Your task to perform on an android device: turn off sleep mode Image 0: 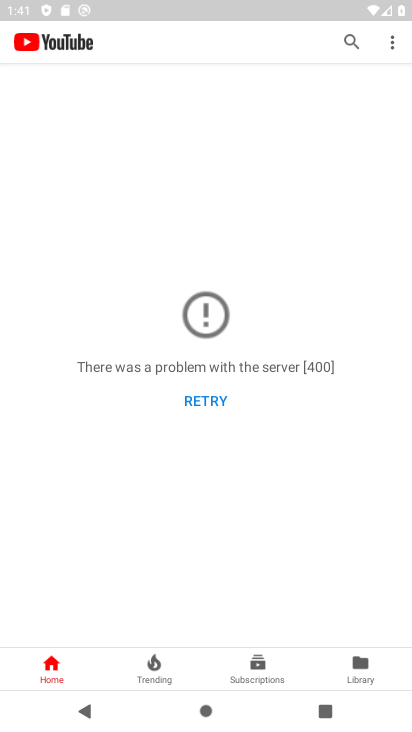
Step 0: press home button
Your task to perform on an android device: turn off sleep mode Image 1: 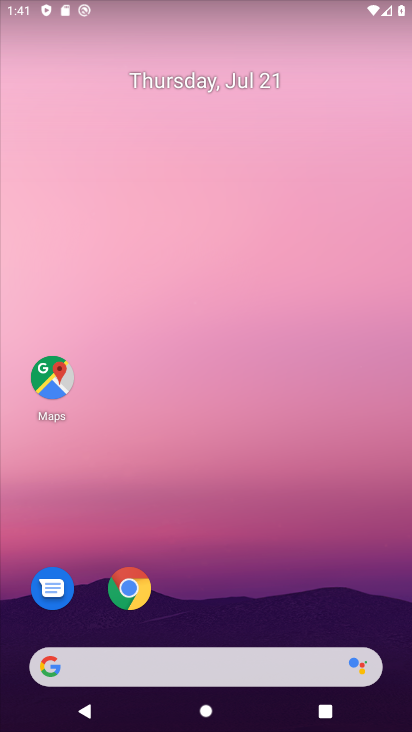
Step 1: drag from (394, 669) to (311, 75)
Your task to perform on an android device: turn off sleep mode Image 2: 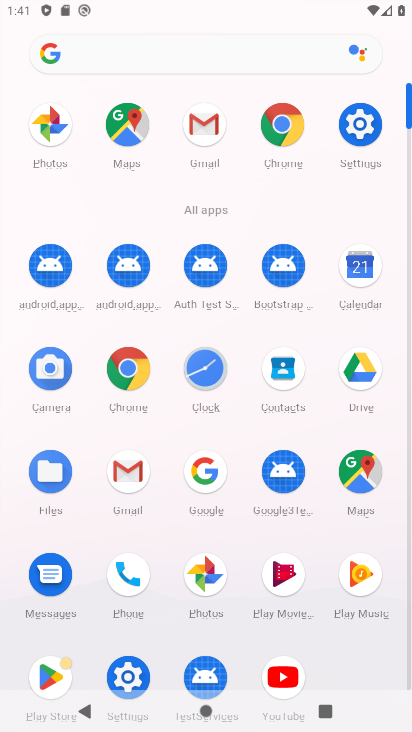
Step 2: click (359, 140)
Your task to perform on an android device: turn off sleep mode Image 3: 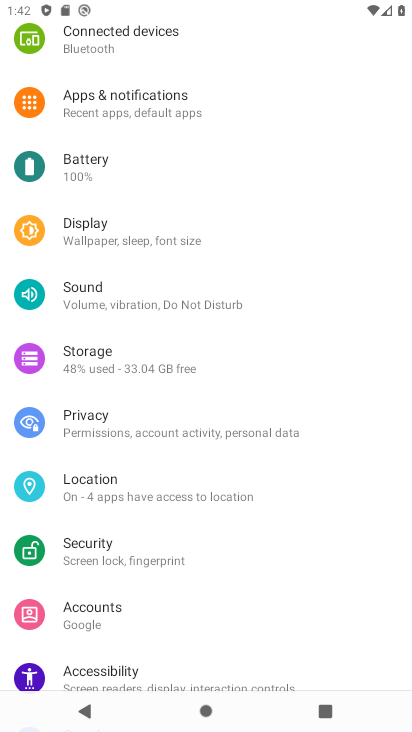
Step 3: click (108, 225)
Your task to perform on an android device: turn off sleep mode Image 4: 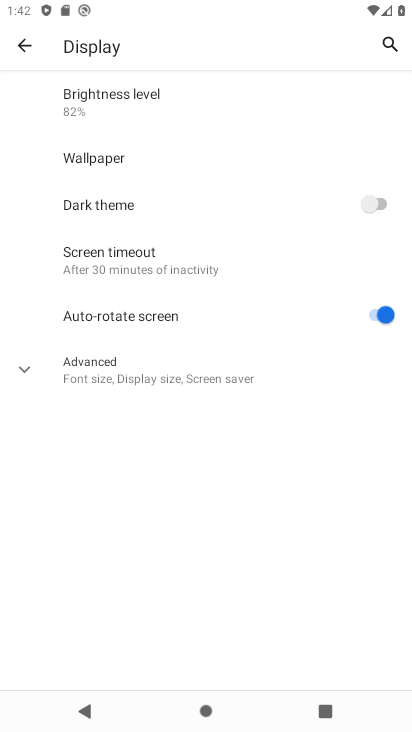
Step 4: click (43, 362)
Your task to perform on an android device: turn off sleep mode Image 5: 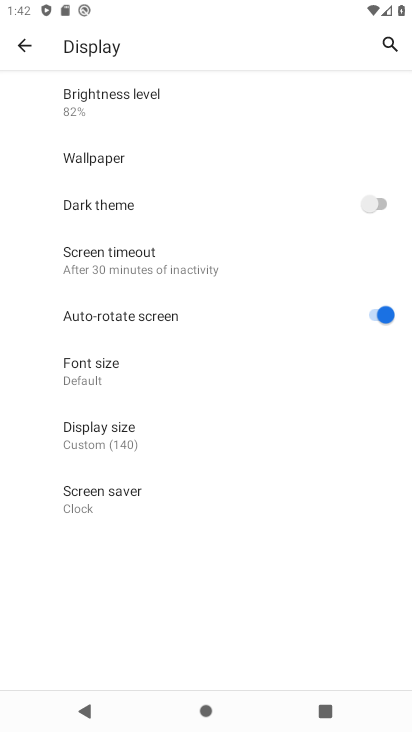
Step 5: click (96, 249)
Your task to perform on an android device: turn off sleep mode Image 6: 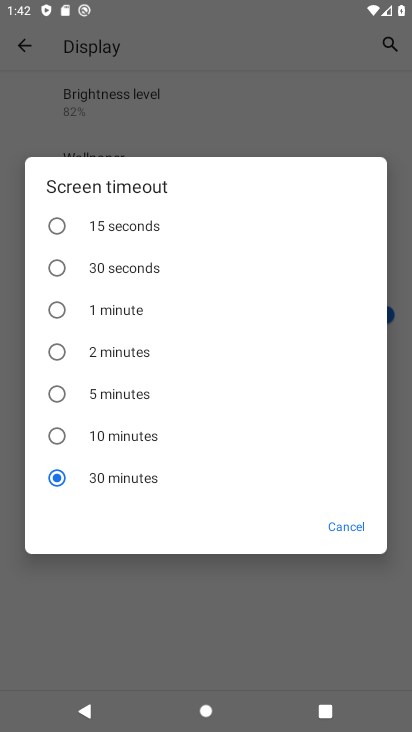
Step 6: task complete